Your task to perform on an android device: When is my next appointment? Image 0: 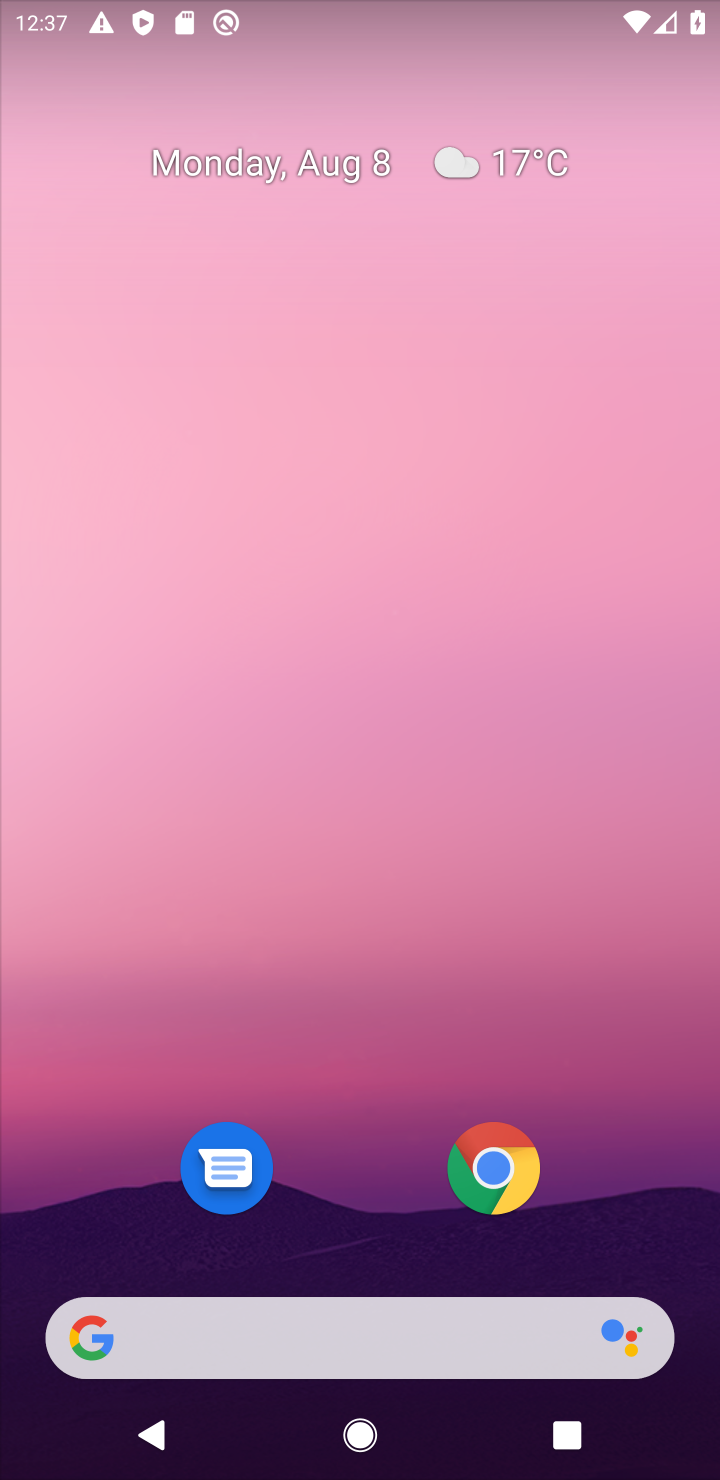
Step 0: drag from (69, 1433) to (375, 544)
Your task to perform on an android device: When is my next appointment? Image 1: 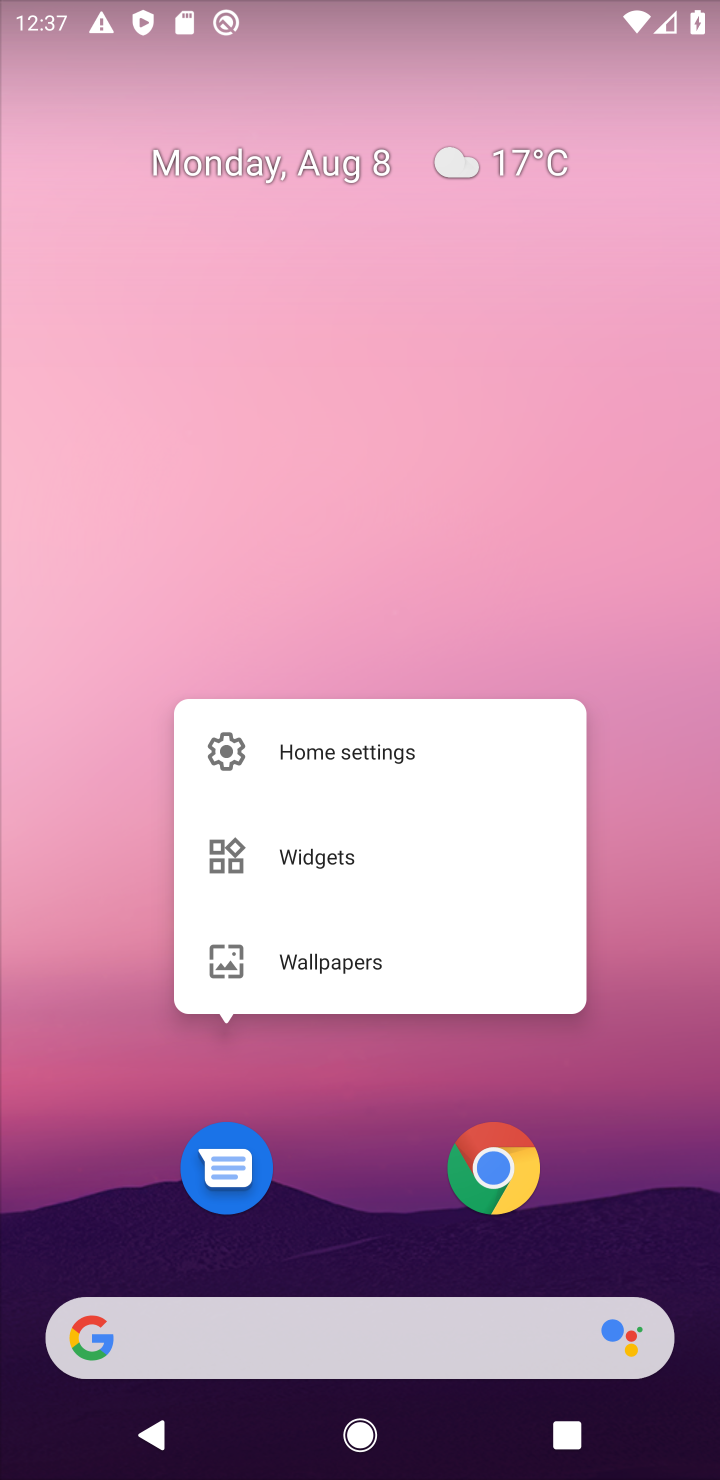
Step 1: click (29, 1461)
Your task to perform on an android device: When is my next appointment? Image 2: 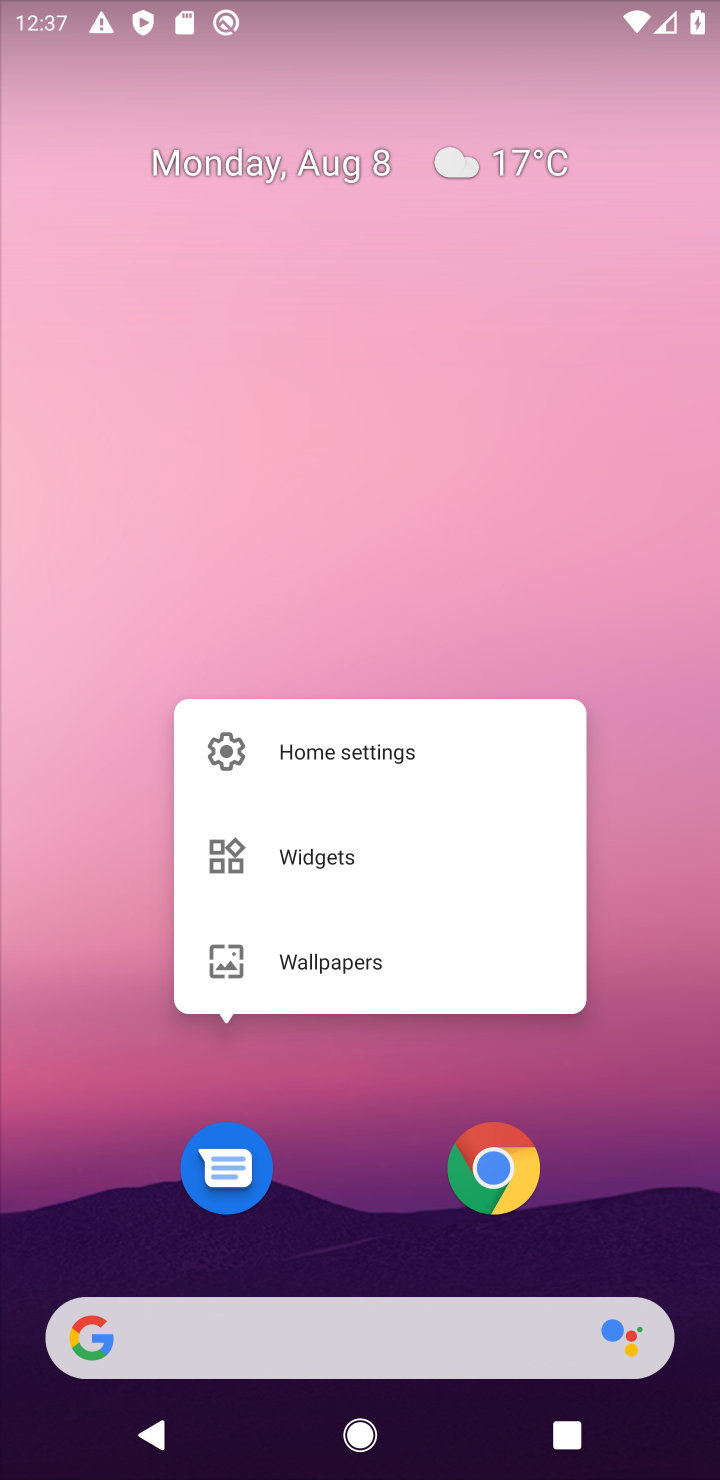
Step 2: click (358, 281)
Your task to perform on an android device: When is my next appointment? Image 3: 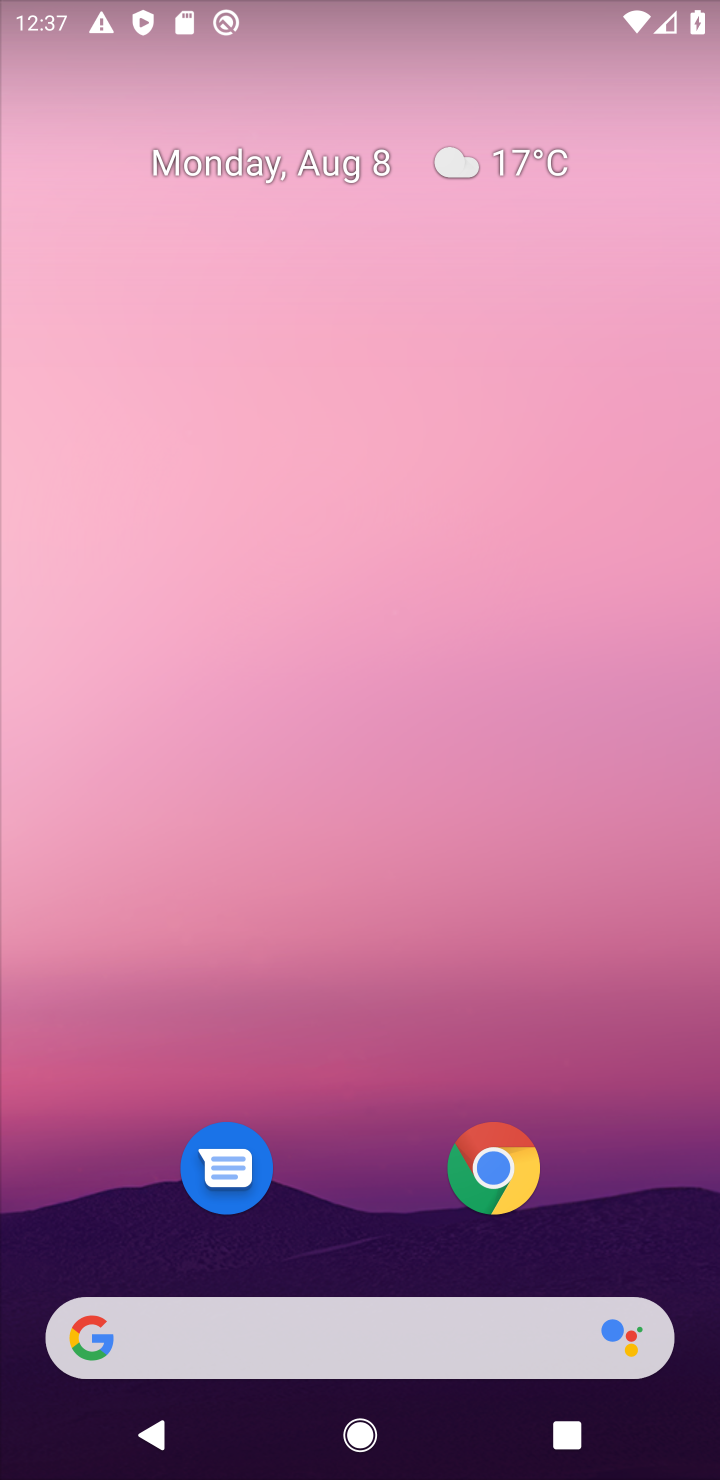
Step 3: task complete